Your task to perform on an android device: set default search engine in the chrome app Image 0: 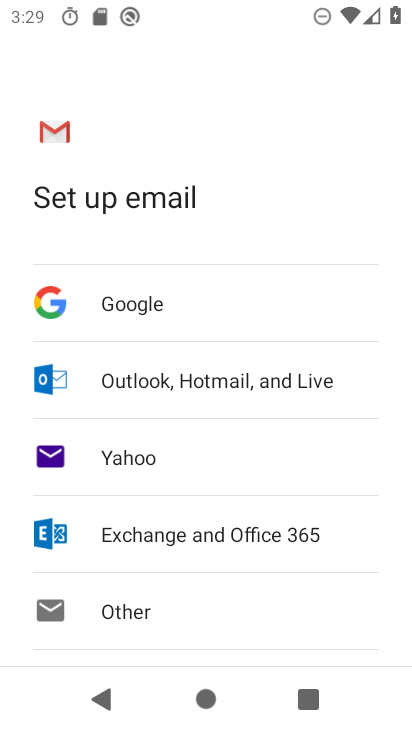
Step 0: press home button
Your task to perform on an android device: set default search engine in the chrome app Image 1: 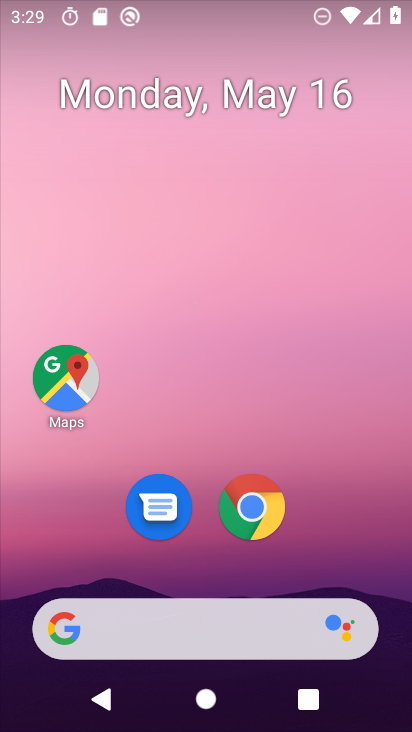
Step 1: drag from (332, 544) to (270, 75)
Your task to perform on an android device: set default search engine in the chrome app Image 2: 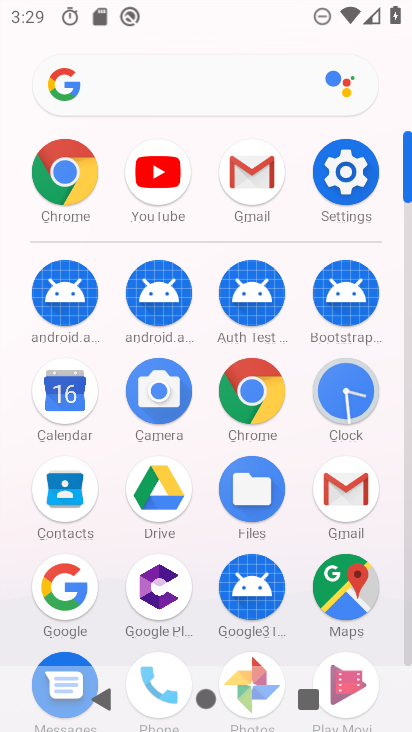
Step 2: click (64, 175)
Your task to perform on an android device: set default search engine in the chrome app Image 3: 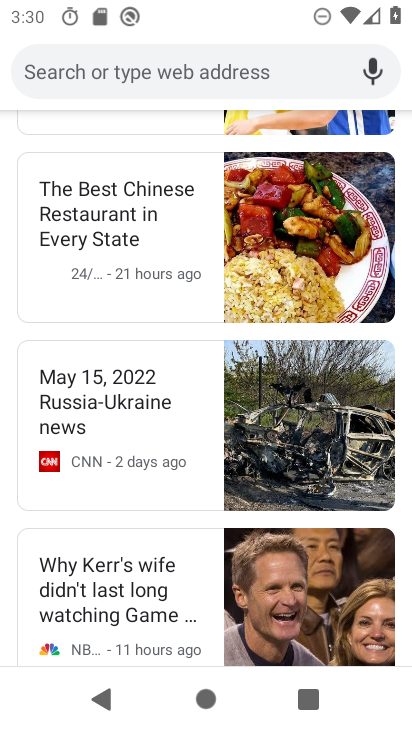
Step 3: drag from (140, 183) to (92, 652)
Your task to perform on an android device: set default search engine in the chrome app Image 4: 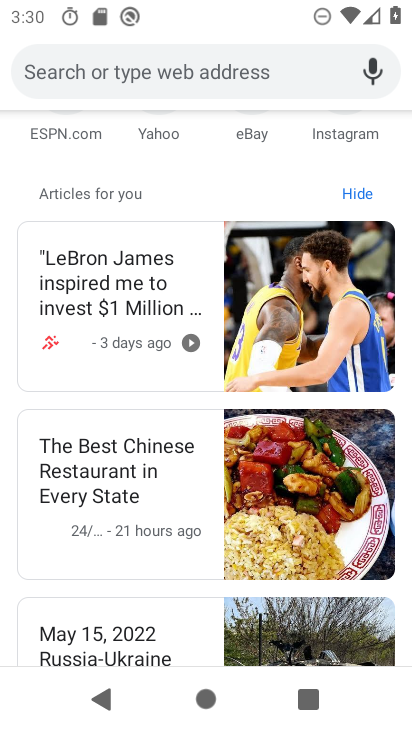
Step 4: drag from (94, 278) to (68, 603)
Your task to perform on an android device: set default search engine in the chrome app Image 5: 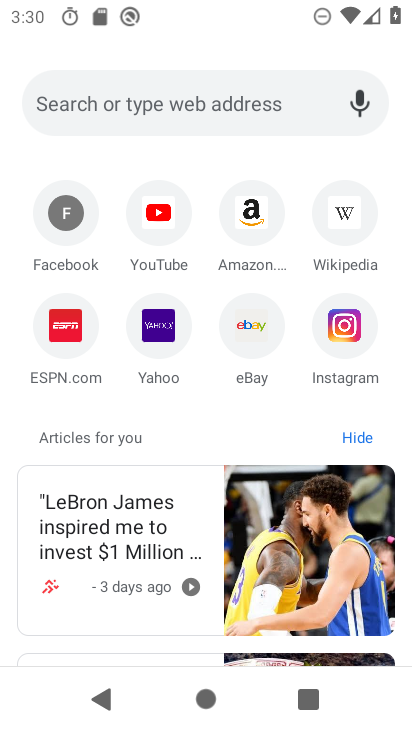
Step 5: drag from (180, 316) to (180, 655)
Your task to perform on an android device: set default search engine in the chrome app Image 6: 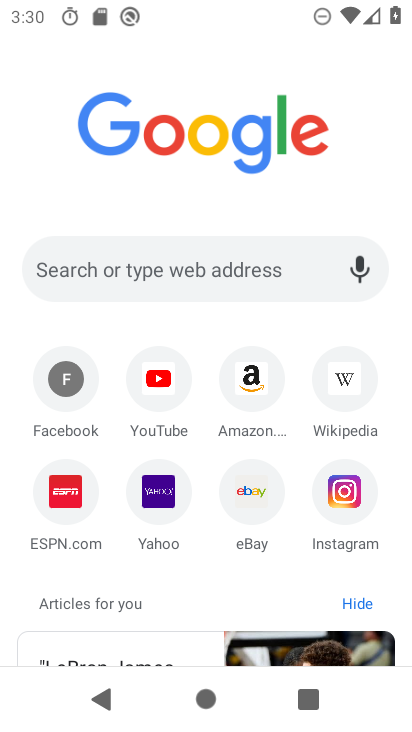
Step 6: drag from (398, 185) to (379, 496)
Your task to perform on an android device: set default search engine in the chrome app Image 7: 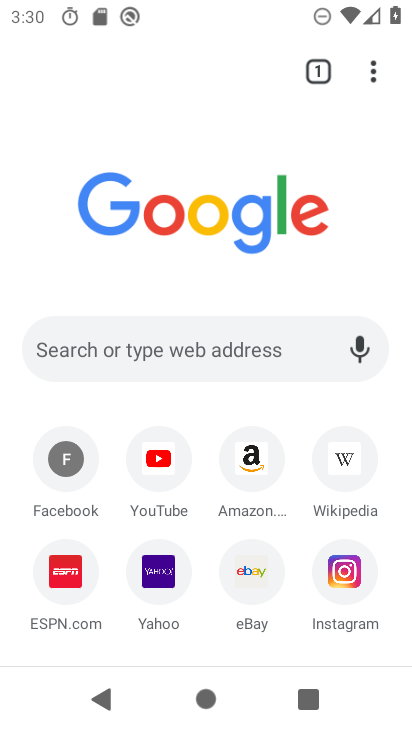
Step 7: click (371, 82)
Your task to perform on an android device: set default search engine in the chrome app Image 8: 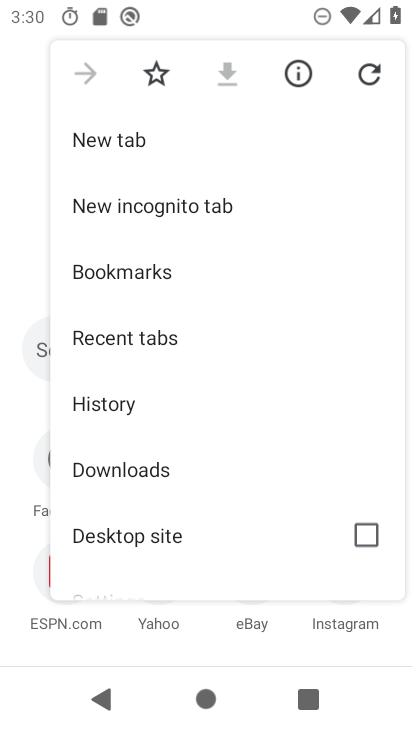
Step 8: drag from (152, 457) to (152, 145)
Your task to perform on an android device: set default search engine in the chrome app Image 9: 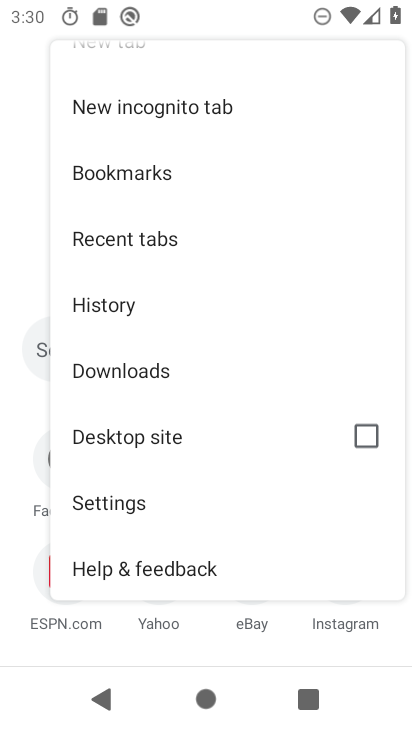
Step 9: click (112, 494)
Your task to perform on an android device: set default search engine in the chrome app Image 10: 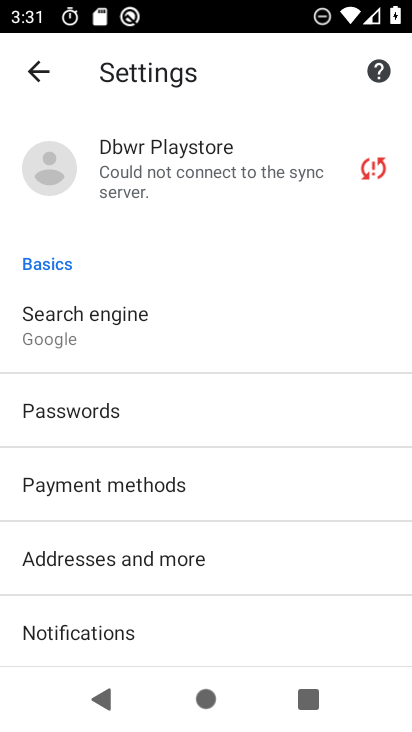
Step 10: drag from (170, 560) to (165, 254)
Your task to perform on an android device: set default search engine in the chrome app Image 11: 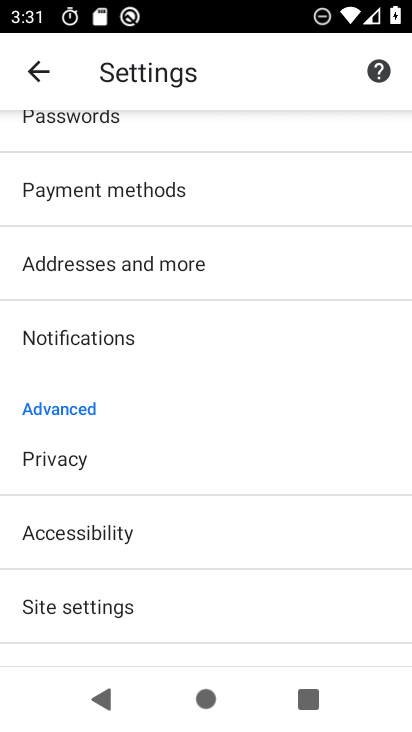
Step 11: drag from (112, 559) to (179, 224)
Your task to perform on an android device: set default search engine in the chrome app Image 12: 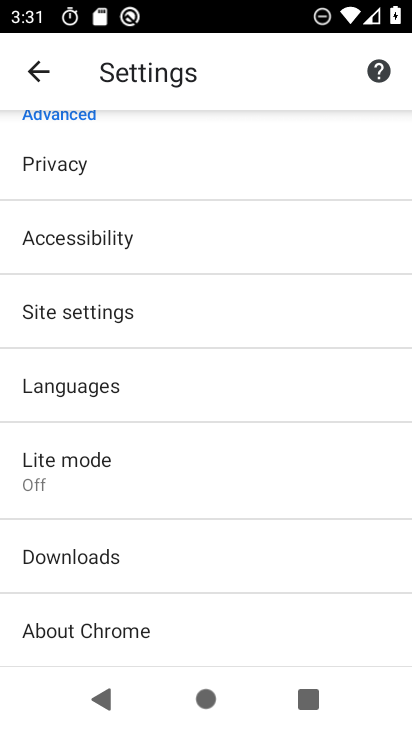
Step 12: drag from (142, 171) to (132, 611)
Your task to perform on an android device: set default search engine in the chrome app Image 13: 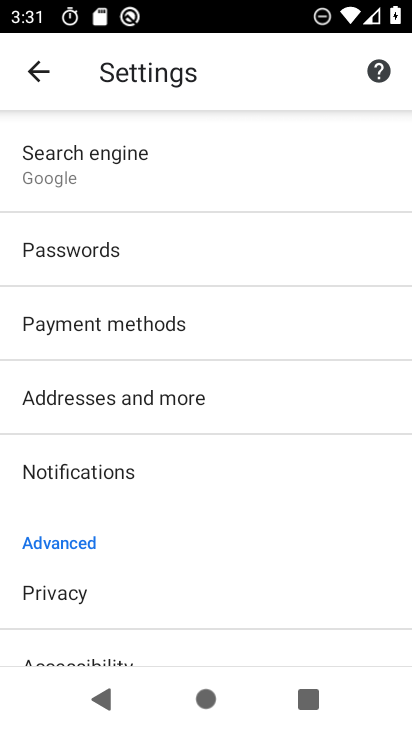
Step 13: click (149, 153)
Your task to perform on an android device: set default search engine in the chrome app Image 14: 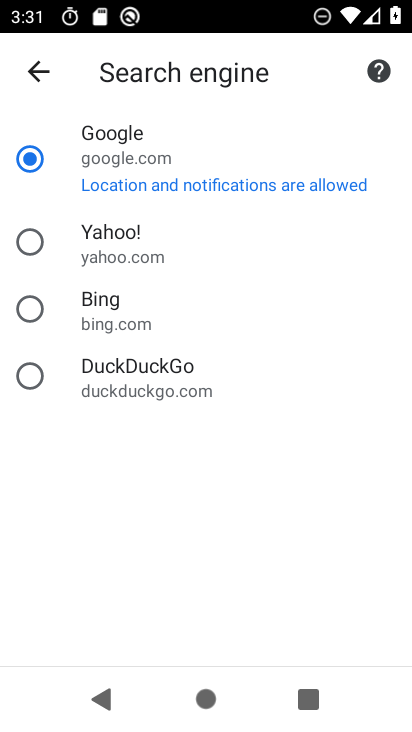
Step 14: task complete